Your task to perform on an android device: Go to notification settings Image 0: 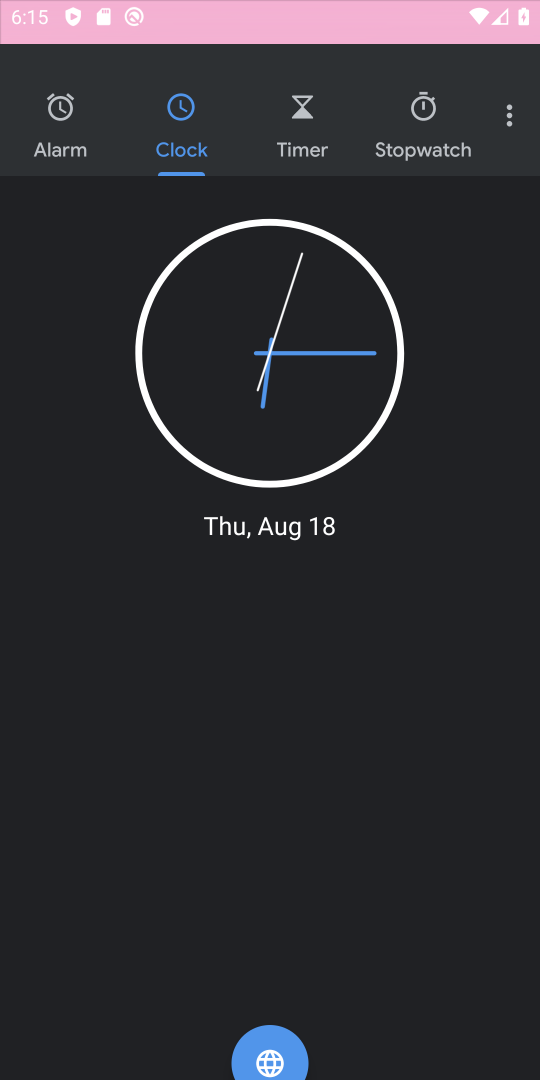
Step 0: press home button
Your task to perform on an android device: Go to notification settings Image 1: 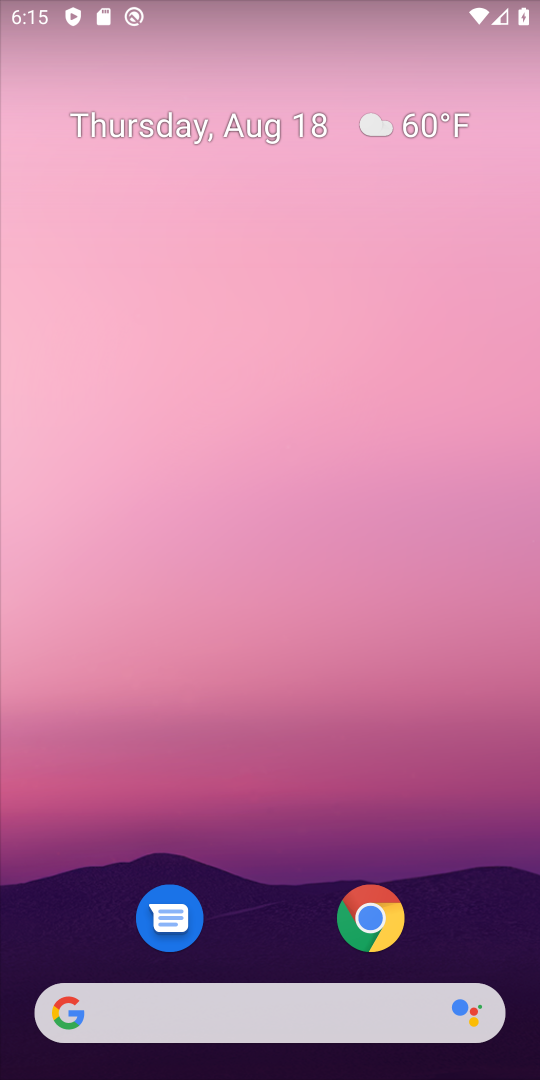
Step 1: drag from (268, 935) to (100, 27)
Your task to perform on an android device: Go to notification settings Image 2: 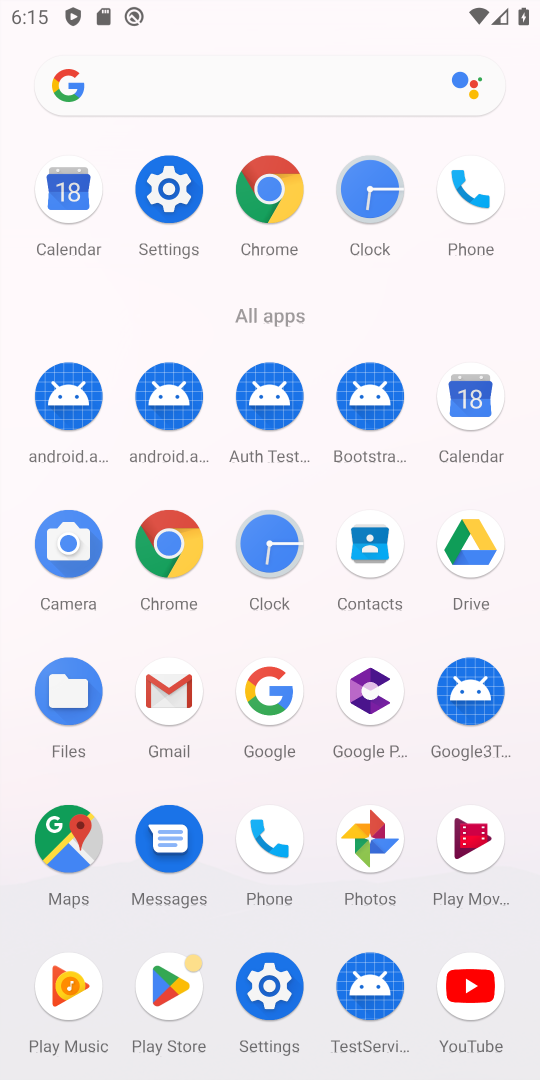
Step 2: click (181, 211)
Your task to perform on an android device: Go to notification settings Image 3: 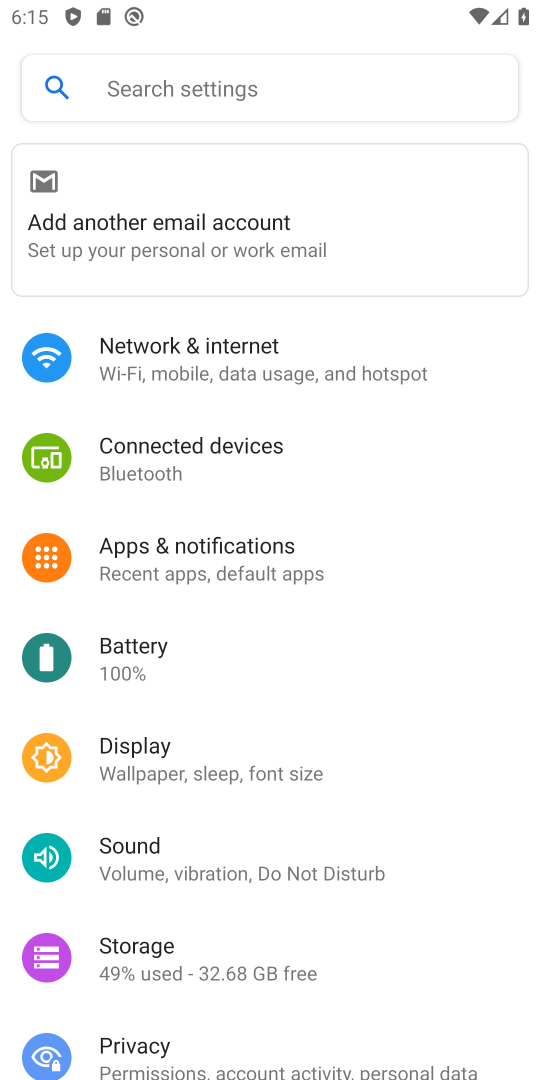
Step 3: click (192, 569)
Your task to perform on an android device: Go to notification settings Image 4: 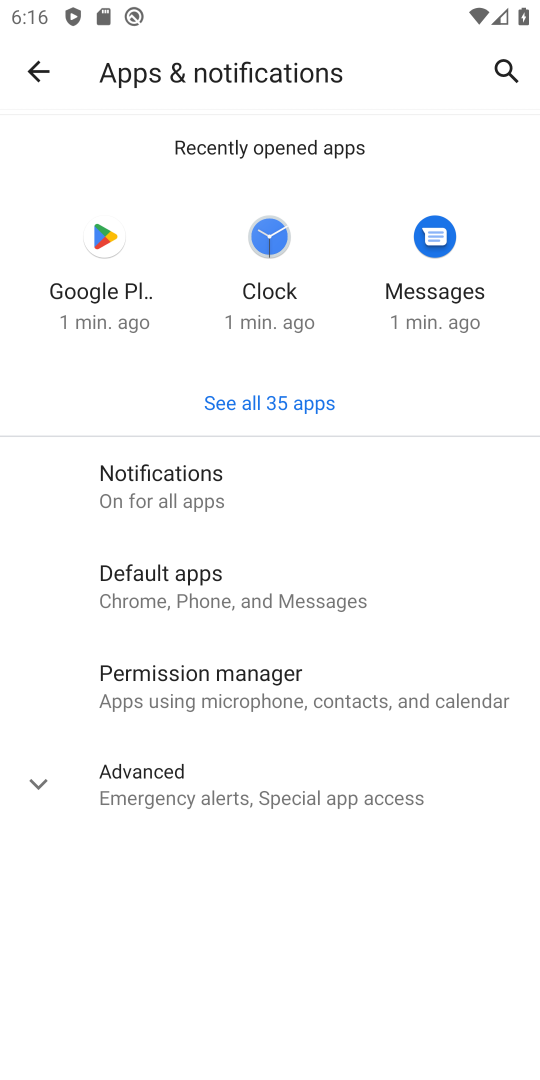
Step 4: click (124, 494)
Your task to perform on an android device: Go to notification settings Image 5: 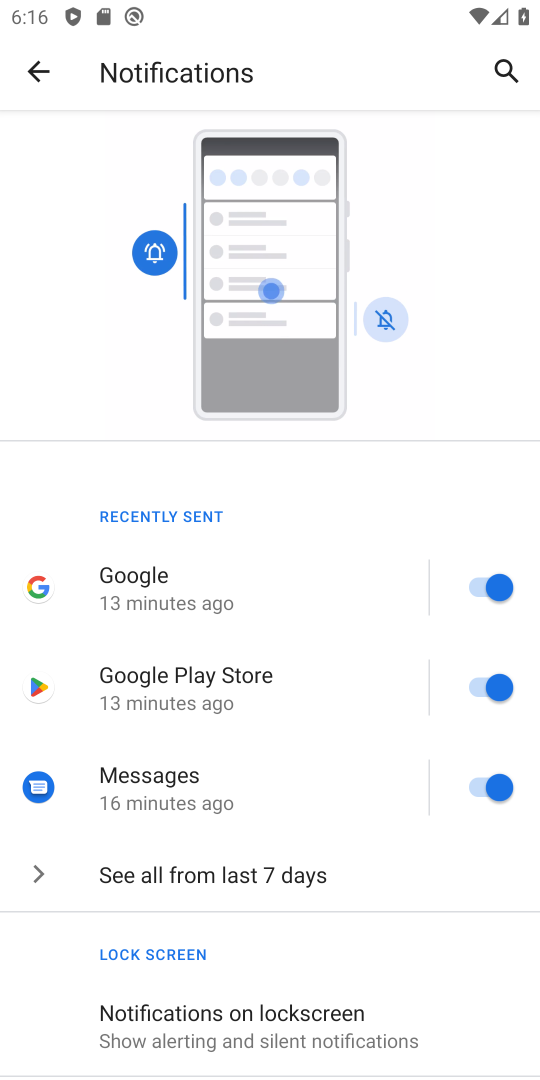
Step 5: task complete